Your task to perform on an android device: Do I have any events tomorrow? Image 0: 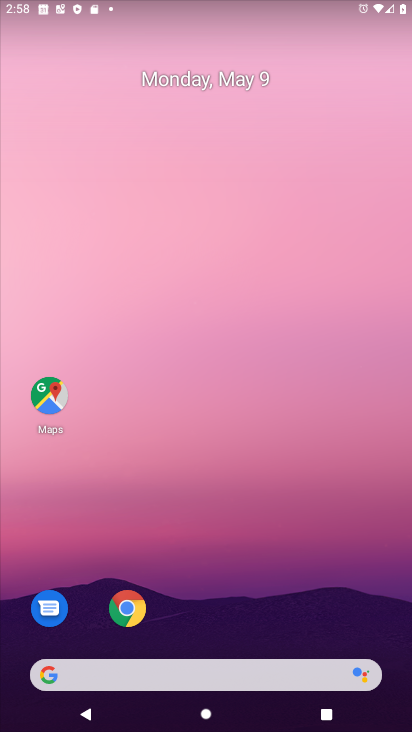
Step 0: click (208, 72)
Your task to perform on an android device: Do I have any events tomorrow? Image 1: 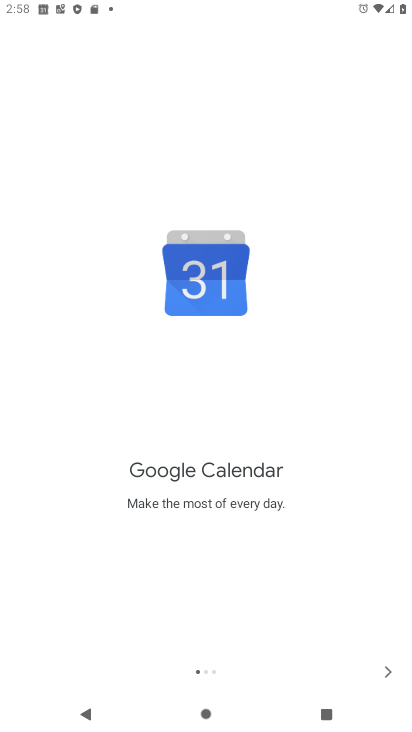
Step 1: click (376, 673)
Your task to perform on an android device: Do I have any events tomorrow? Image 2: 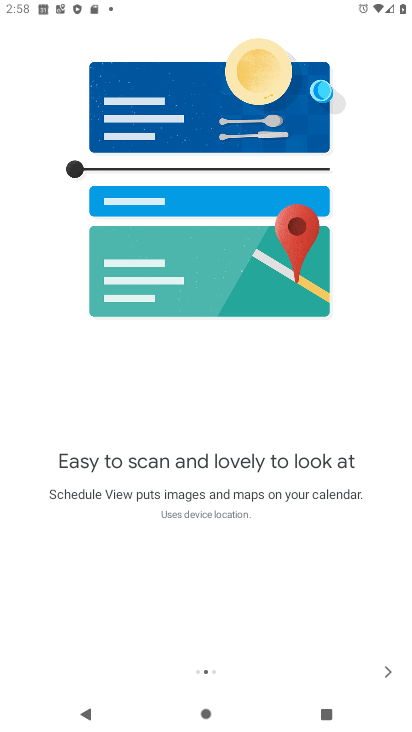
Step 2: click (376, 673)
Your task to perform on an android device: Do I have any events tomorrow? Image 3: 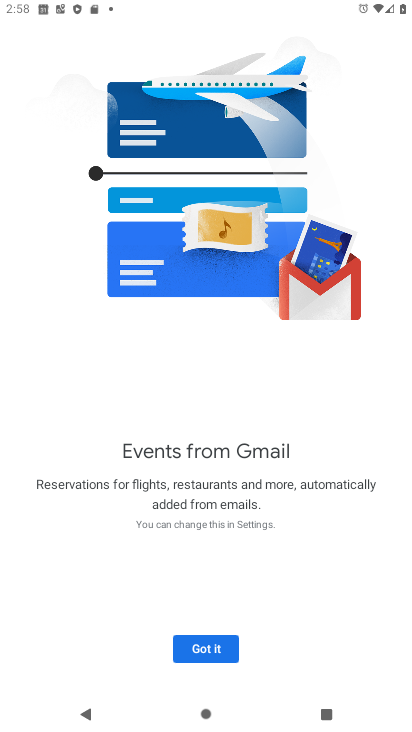
Step 3: click (376, 673)
Your task to perform on an android device: Do I have any events tomorrow? Image 4: 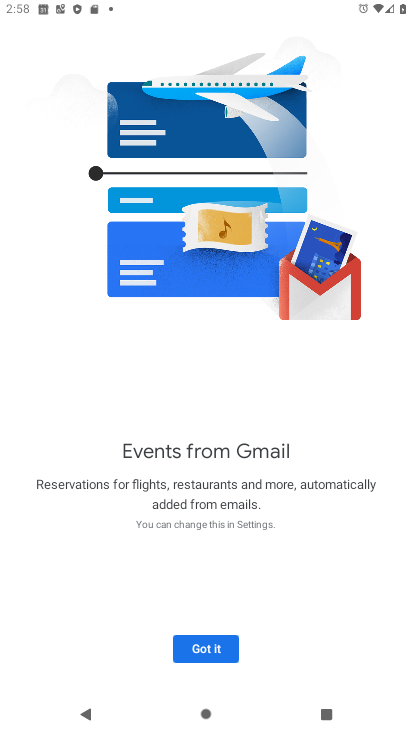
Step 4: click (209, 637)
Your task to perform on an android device: Do I have any events tomorrow? Image 5: 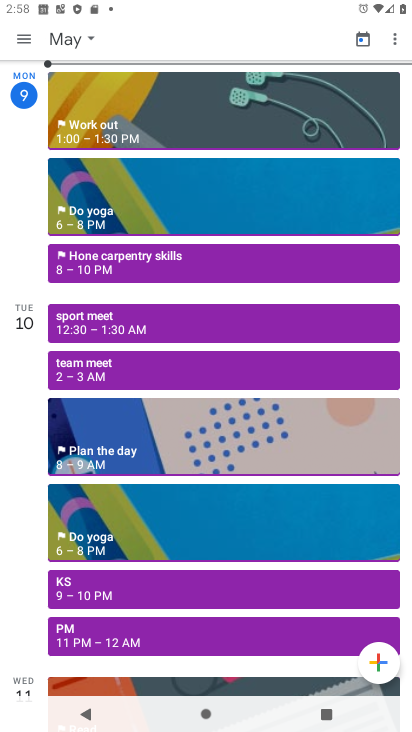
Step 5: click (82, 587)
Your task to perform on an android device: Do I have any events tomorrow? Image 6: 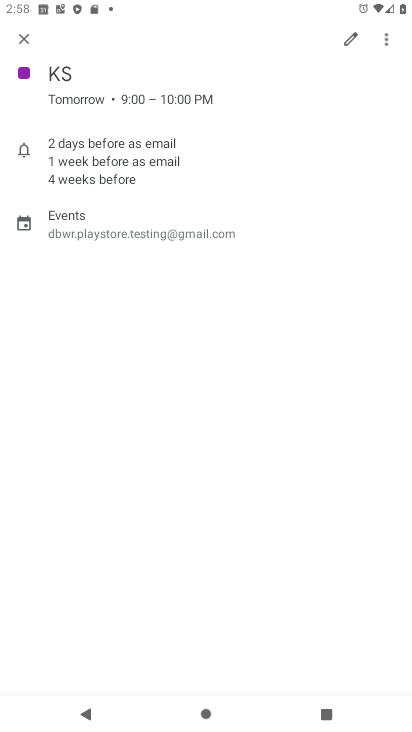
Step 6: task complete